Your task to perform on an android device: turn off notifications in google photos Image 0: 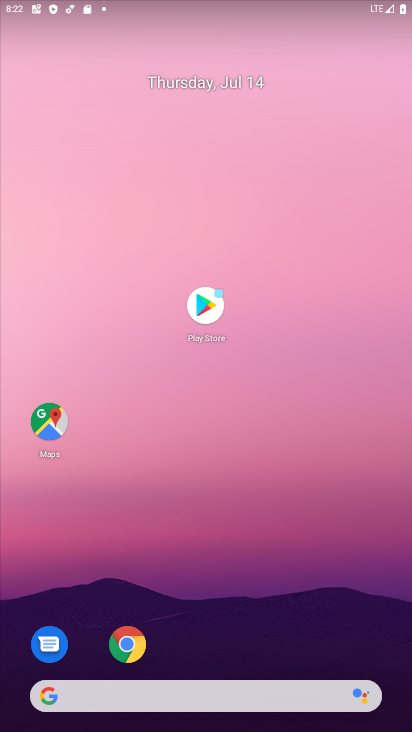
Step 0: drag from (190, 290) to (197, 146)
Your task to perform on an android device: turn off notifications in google photos Image 1: 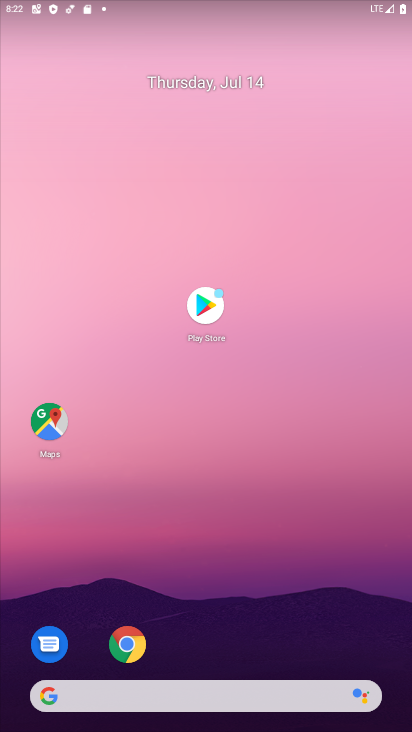
Step 1: drag from (200, 600) to (240, 42)
Your task to perform on an android device: turn off notifications in google photos Image 2: 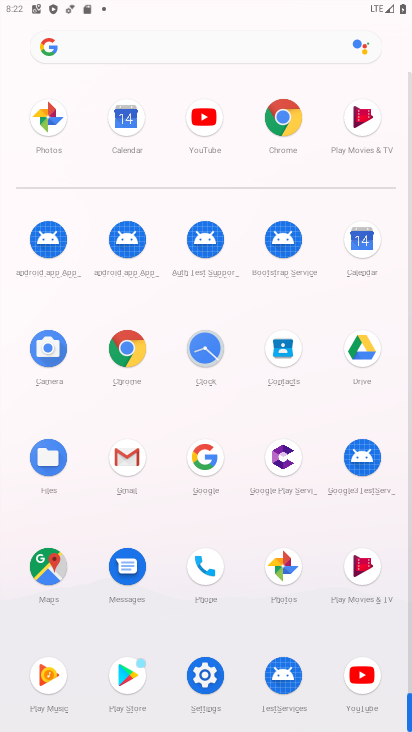
Step 2: click (278, 559)
Your task to perform on an android device: turn off notifications in google photos Image 3: 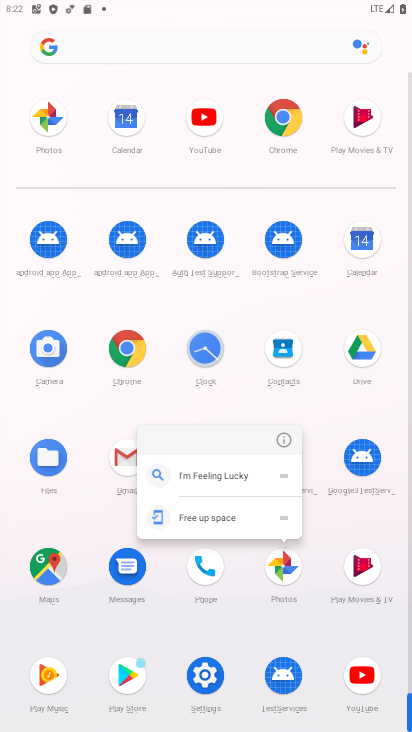
Step 3: click (281, 436)
Your task to perform on an android device: turn off notifications in google photos Image 4: 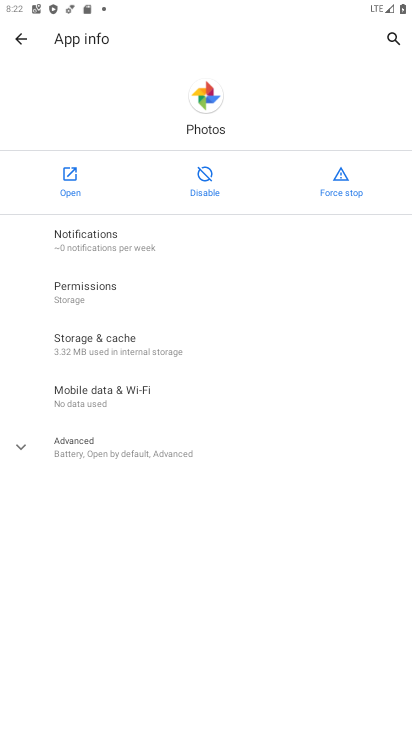
Step 4: click (69, 184)
Your task to perform on an android device: turn off notifications in google photos Image 5: 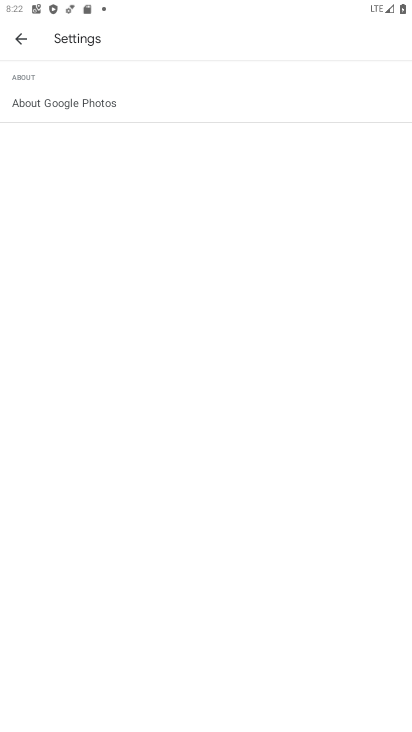
Step 5: click (28, 51)
Your task to perform on an android device: turn off notifications in google photos Image 6: 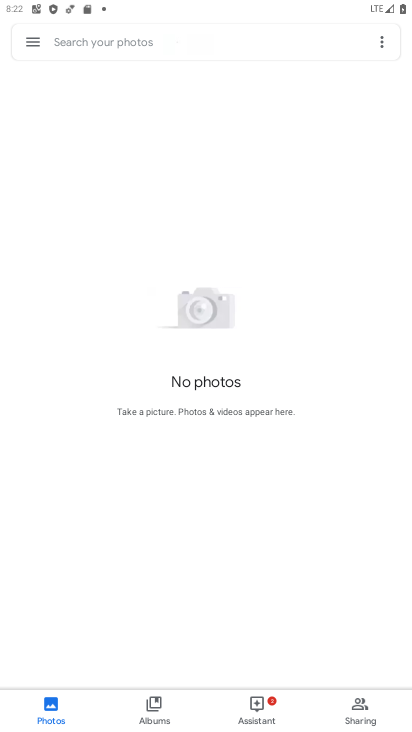
Step 6: click (23, 41)
Your task to perform on an android device: turn off notifications in google photos Image 7: 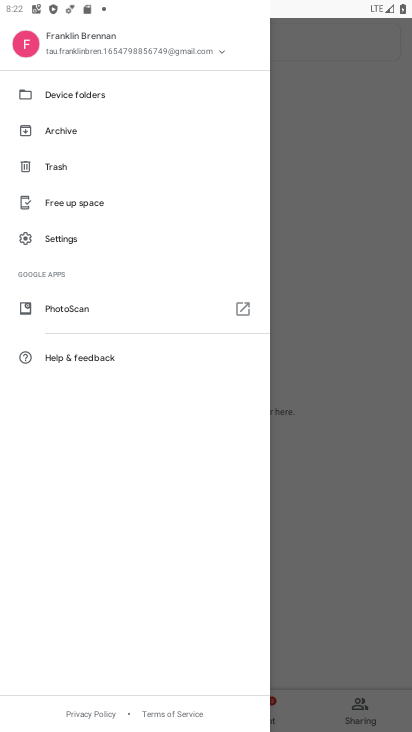
Step 7: click (48, 237)
Your task to perform on an android device: turn off notifications in google photos Image 8: 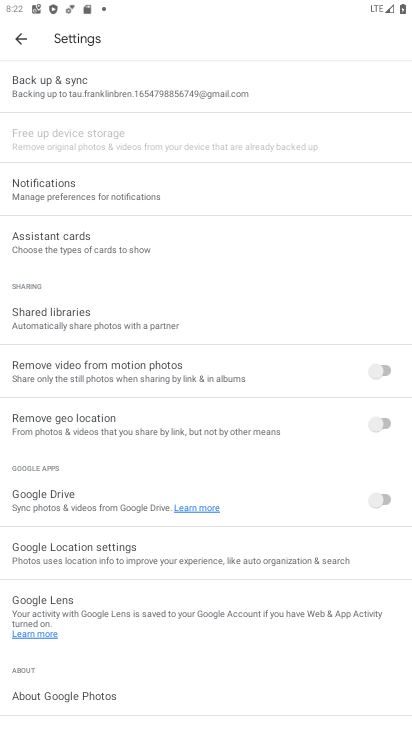
Step 8: drag from (155, 516) to (173, 252)
Your task to perform on an android device: turn off notifications in google photos Image 9: 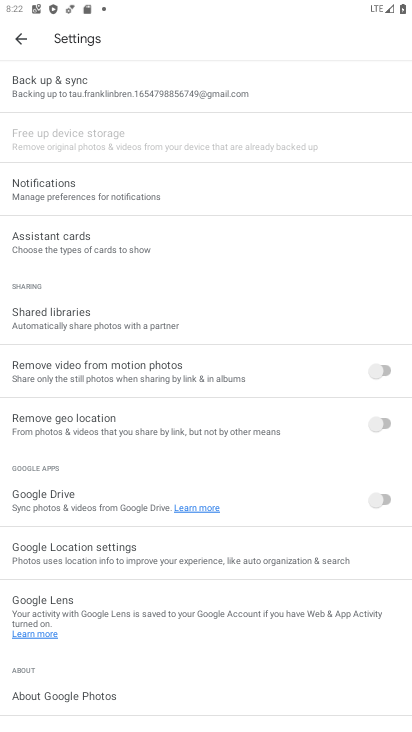
Step 9: drag from (160, 626) to (239, 159)
Your task to perform on an android device: turn off notifications in google photos Image 10: 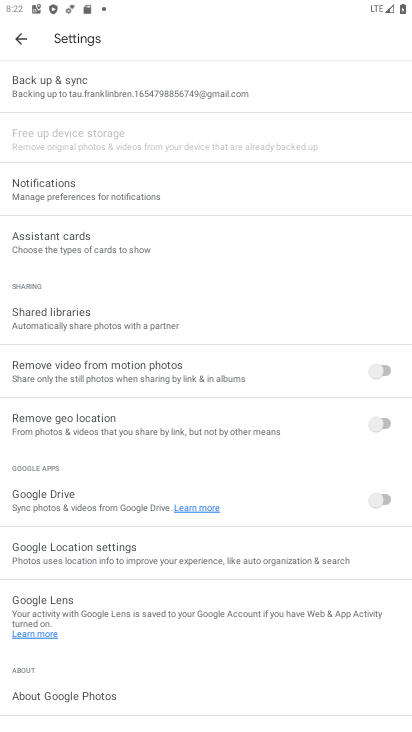
Step 10: drag from (172, 567) to (276, 175)
Your task to perform on an android device: turn off notifications in google photos Image 11: 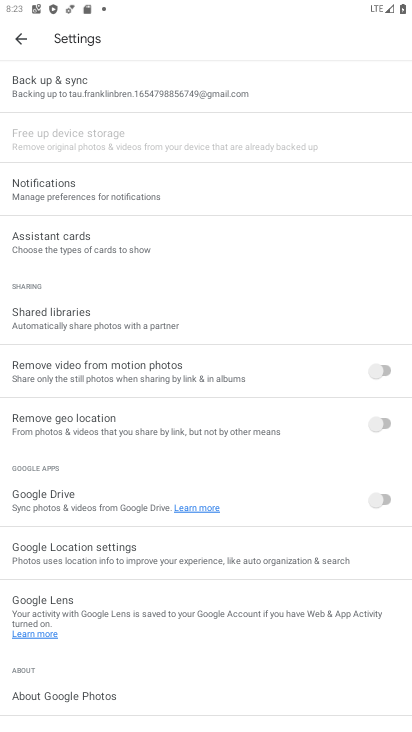
Step 11: drag from (216, 528) to (290, 51)
Your task to perform on an android device: turn off notifications in google photos Image 12: 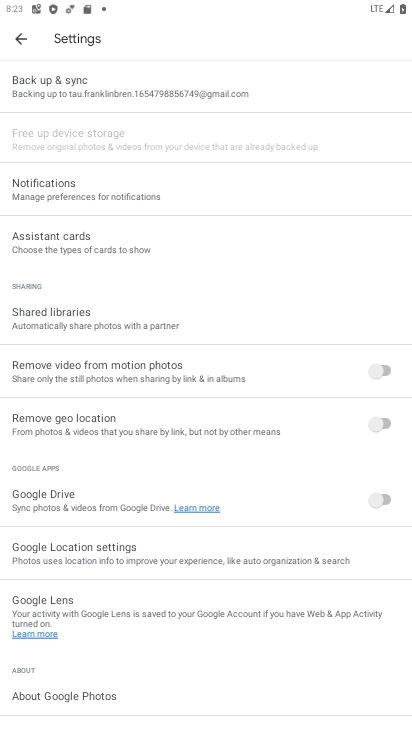
Step 12: drag from (150, 364) to (153, 474)
Your task to perform on an android device: turn off notifications in google photos Image 13: 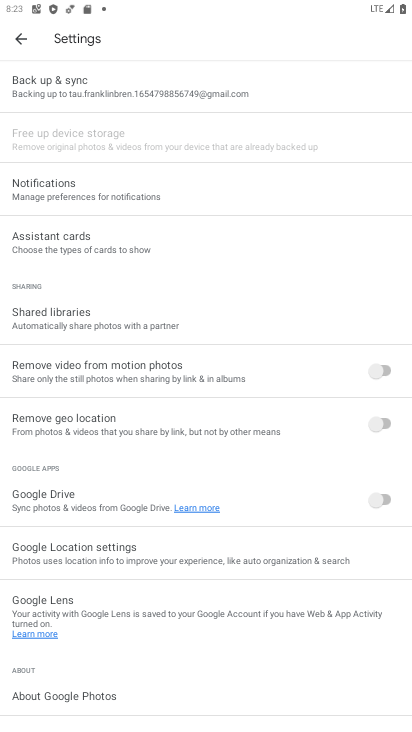
Step 13: click (76, 173)
Your task to perform on an android device: turn off notifications in google photos Image 14: 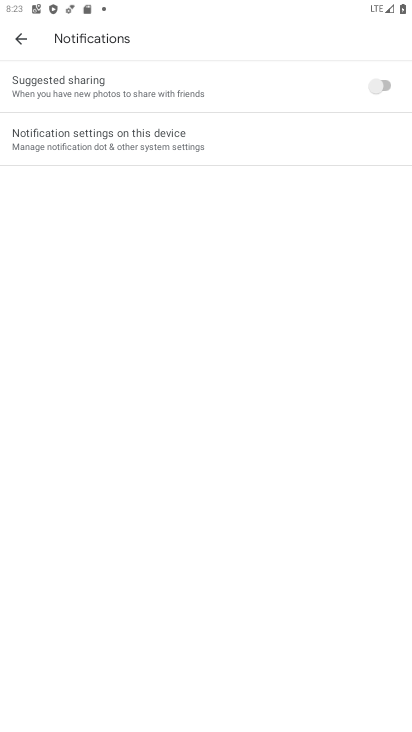
Step 14: click (112, 159)
Your task to perform on an android device: turn off notifications in google photos Image 15: 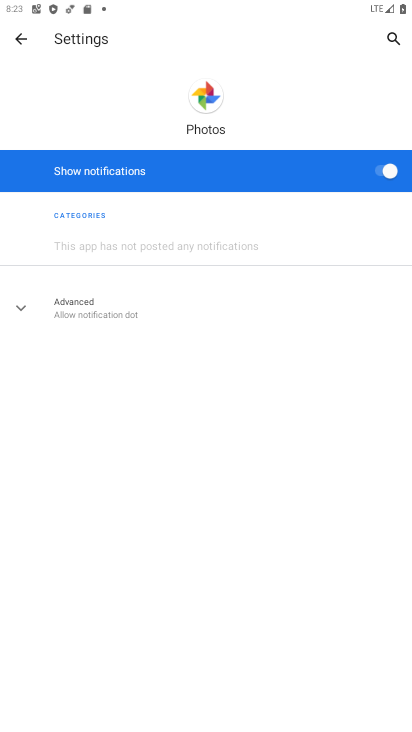
Step 15: click (369, 162)
Your task to perform on an android device: turn off notifications in google photos Image 16: 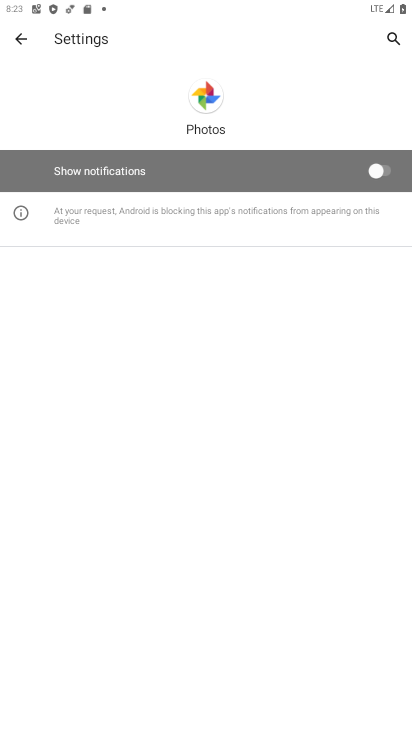
Step 16: task complete